Your task to perform on an android device: check battery use Image 0: 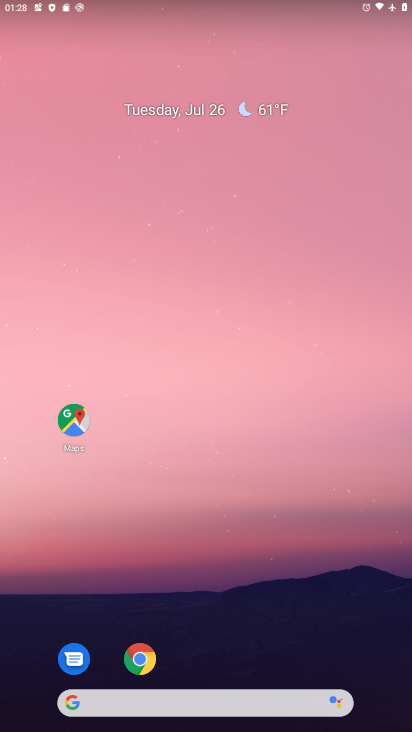
Step 0: drag from (307, 586) to (232, 16)
Your task to perform on an android device: check battery use Image 1: 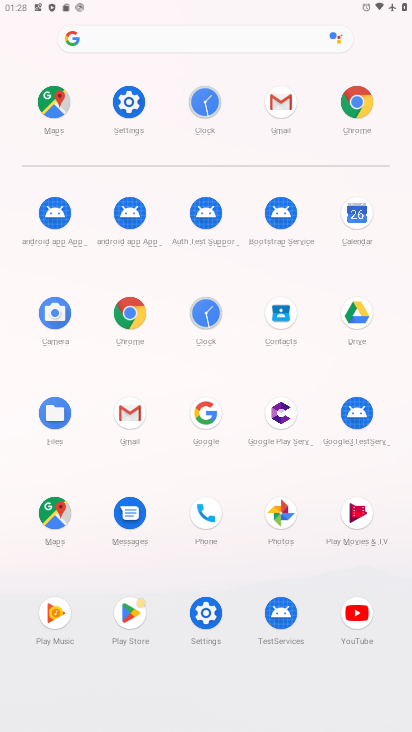
Step 1: click (141, 104)
Your task to perform on an android device: check battery use Image 2: 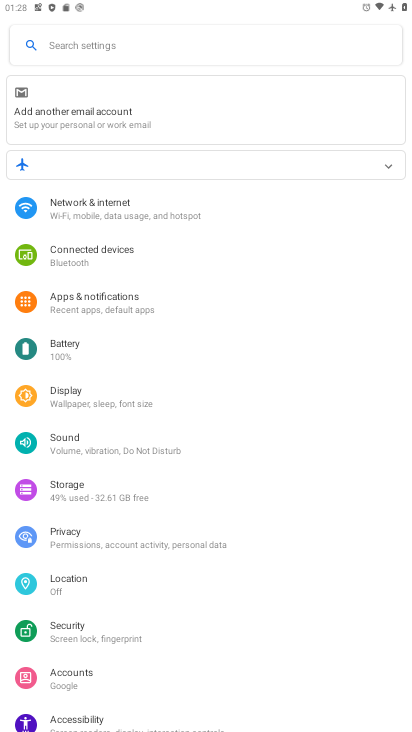
Step 2: click (78, 351)
Your task to perform on an android device: check battery use Image 3: 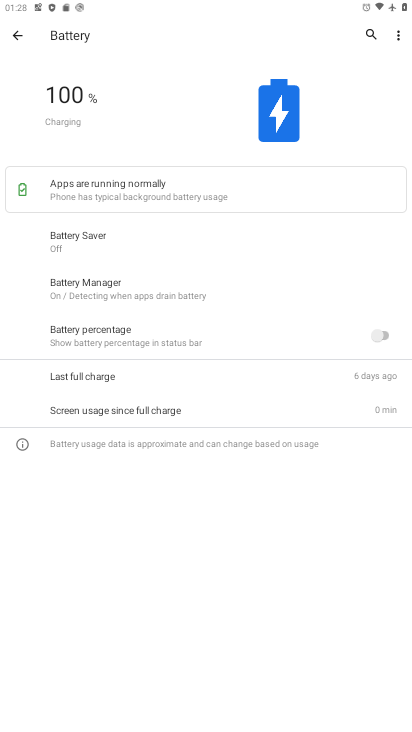
Step 3: click (397, 31)
Your task to perform on an android device: check battery use Image 4: 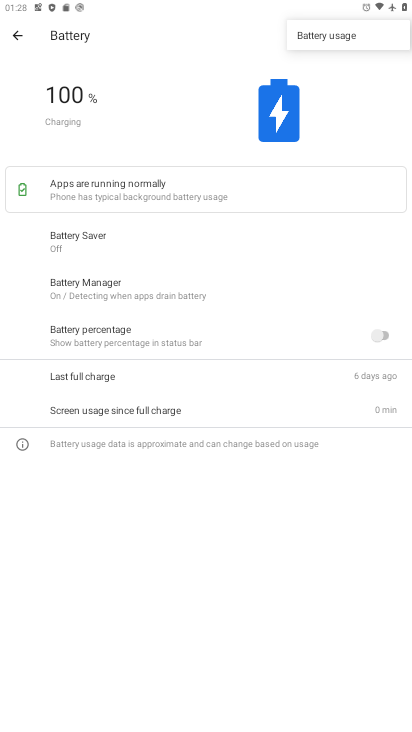
Step 4: click (313, 30)
Your task to perform on an android device: check battery use Image 5: 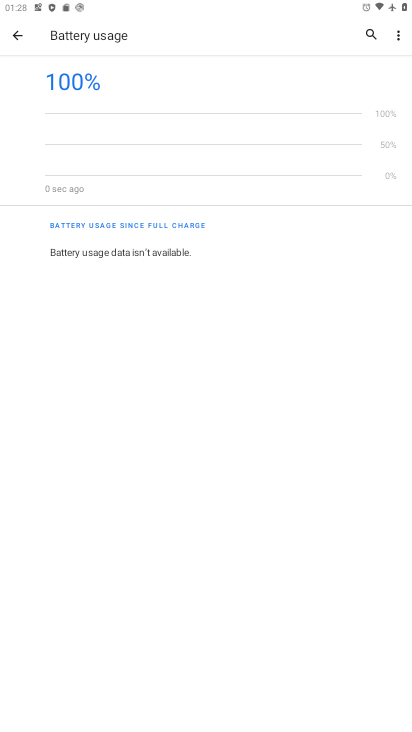
Step 5: task complete